Your task to perform on an android device: change notifications settings Image 0: 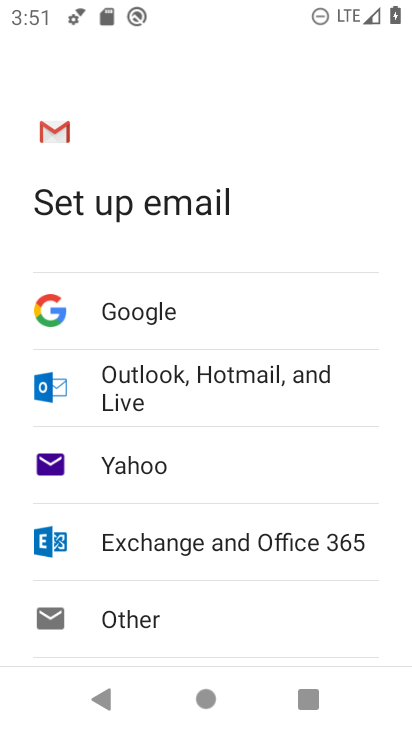
Step 0: press home button
Your task to perform on an android device: change notifications settings Image 1: 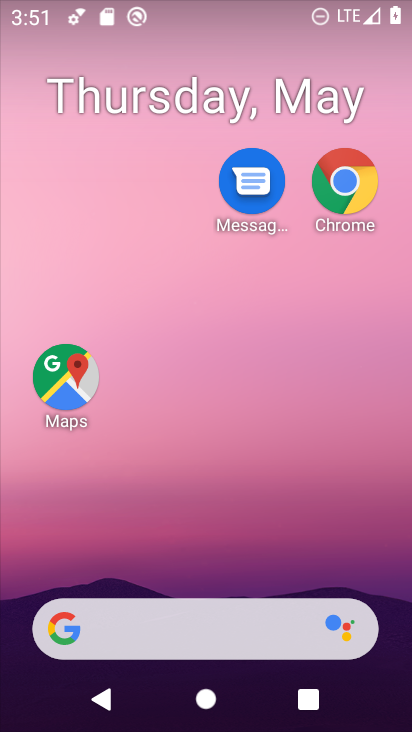
Step 1: drag from (311, 561) to (349, 0)
Your task to perform on an android device: change notifications settings Image 2: 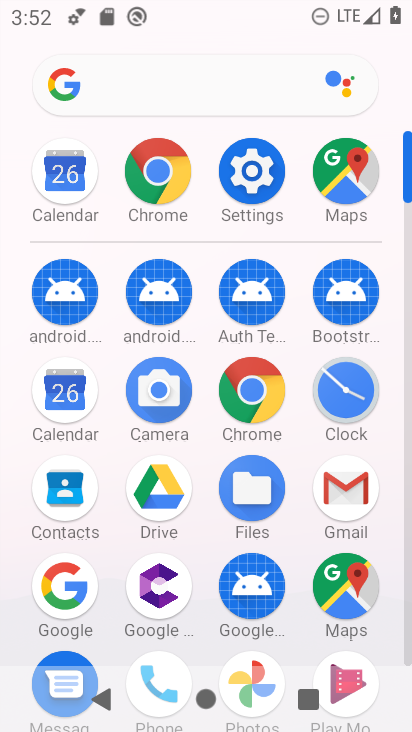
Step 2: click (255, 139)
Your task to perform on an android device: change notifications settings Image 3: 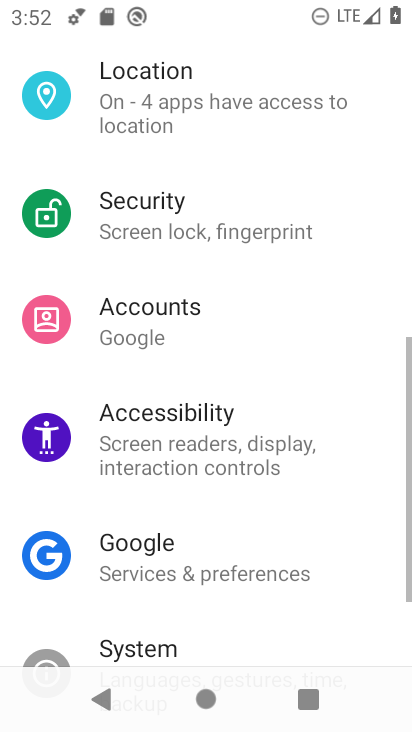
Step 3: drag from (265, 286) to (278, 698)
Your task to perform on an android device: change notifications settings Image 4: 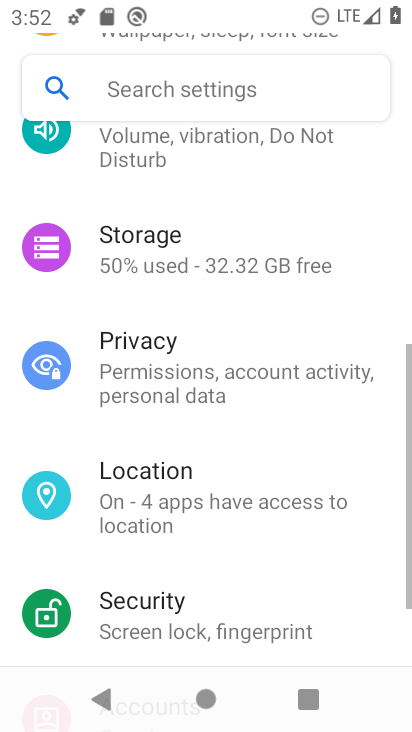
Step 4: drag from (276, 235) to (244, 621)
Your task to perform on an android device: change notifications settings Image 5: 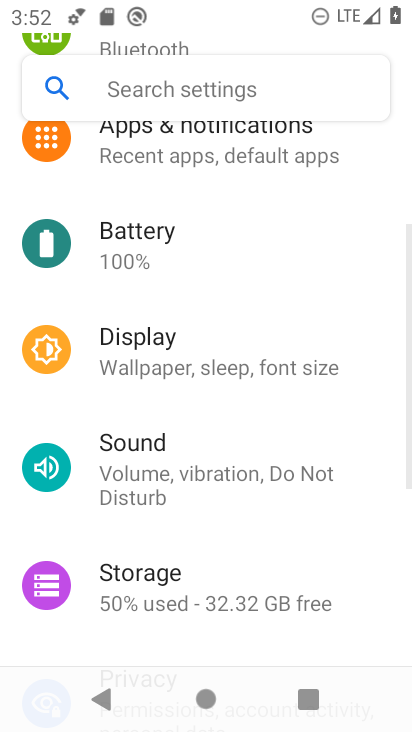
Step 5: drag from (261, 240) to (212, 696)
Your task to perform on an android device: change notifications settings Image 6: 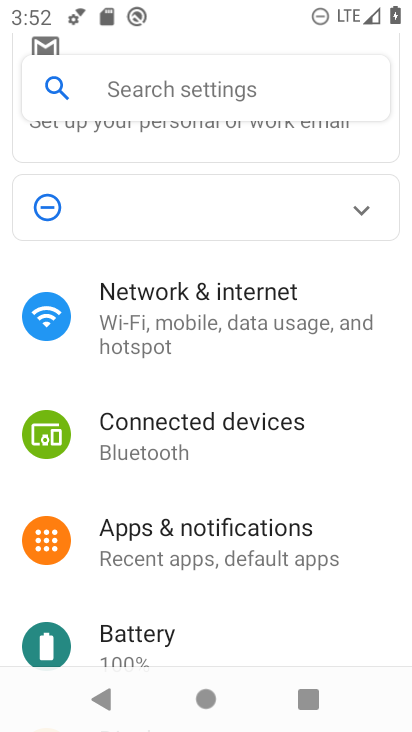
Step 6: click (284, 518)
Your task to perform on an android device: change notifications settings Image 7: 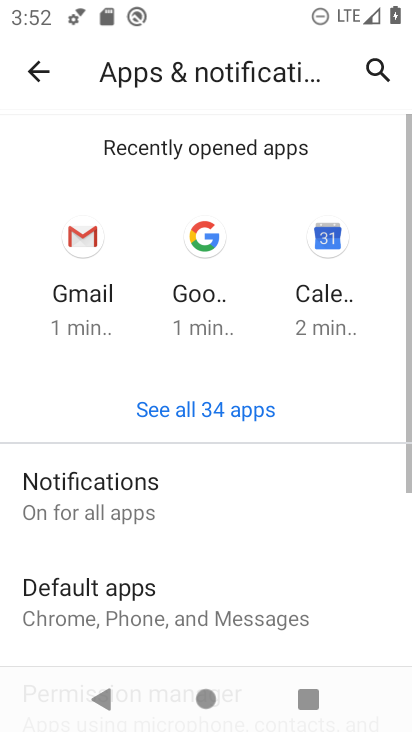
Step 7: drag from (269, 625) to (311, 202)
Your task to perform on an android device: change notifications settings Image 8: 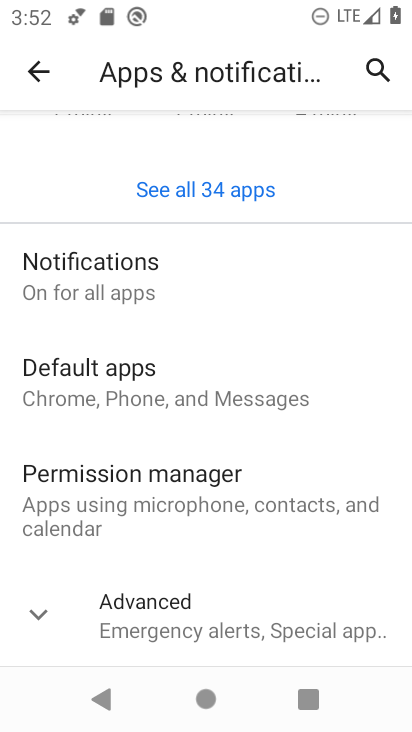
Step 8: click (72, 275)
Your task to perform on an android device: change notifications settings Image 9: 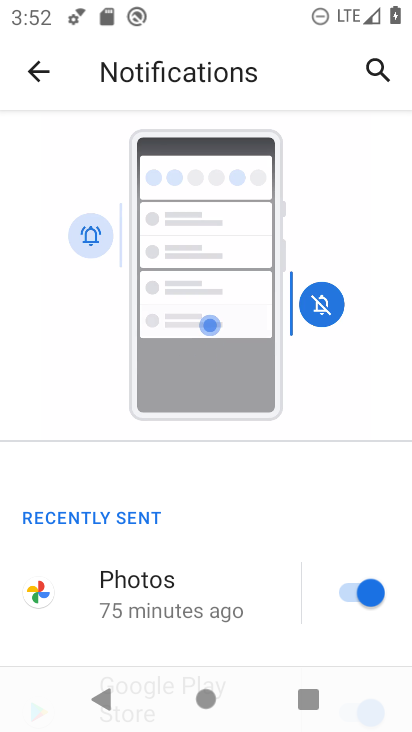
Step 9: drag from (272, 558) to (296, 27)
Your task to perform on an android device: change notifications settings Image 10: 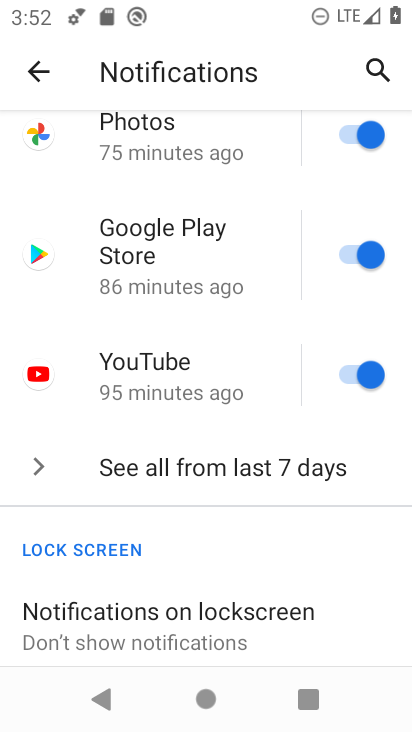
Step 10: click (332, 375)
Your task to perform on an android device: change notifications settings Image 11: 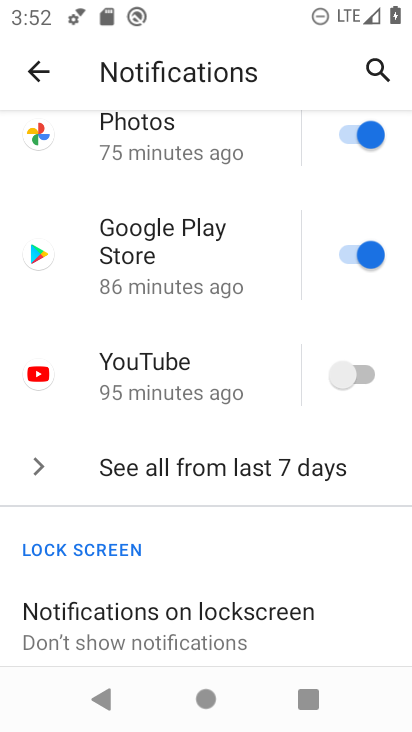
Step 11: task complete